Your task to perform on an android device: change your default location settings in chrome Image 0: 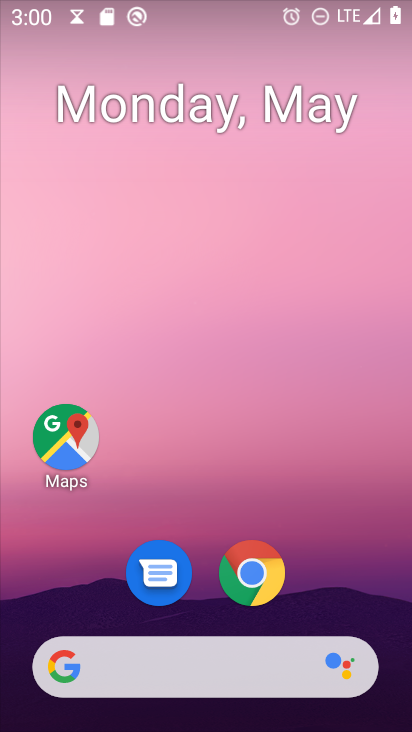
Step 0: drag from (281, 692) to (327, 33)
Your task to perform on an android device: change your default location settings in chrome Image 1: 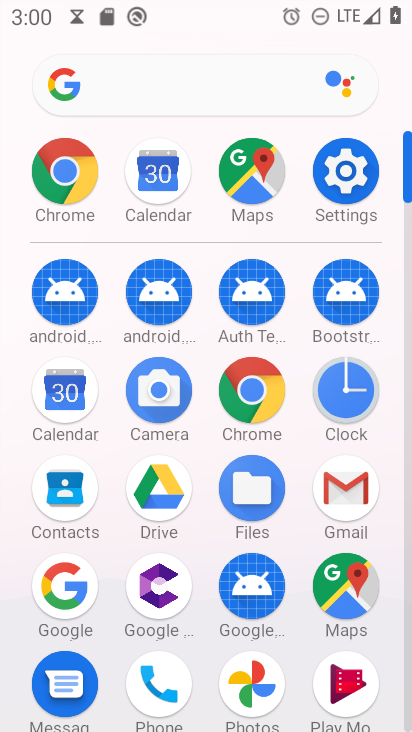
Step 1: click (266, 404)
Your task to perform on an android device: change your default location settings in chrome Image 2: 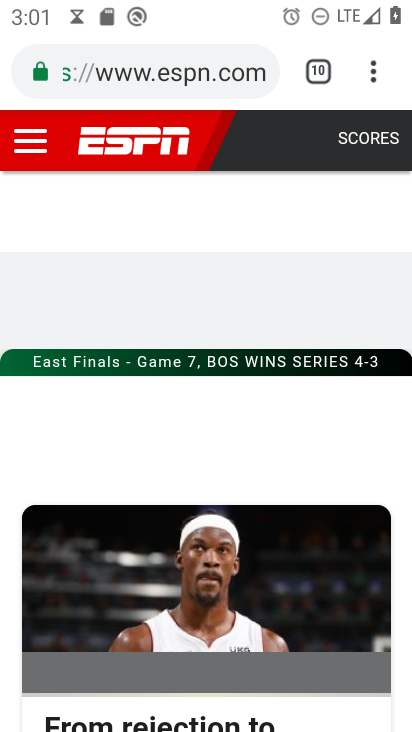
Step 2: drag from (356, 69) to (208, 580)
Your task to perform on an android device: change your default location settings in chrome Image 3: 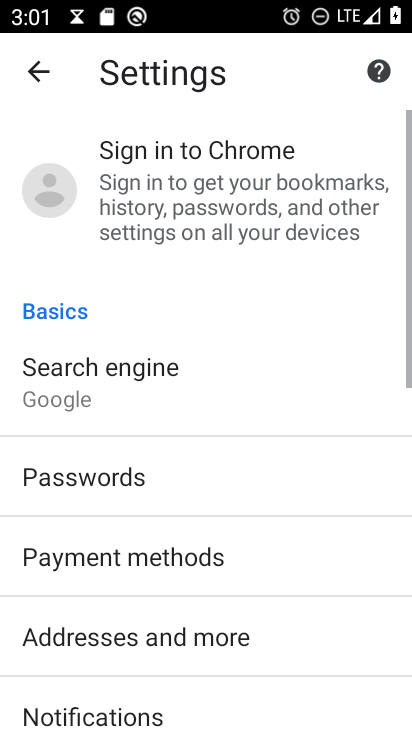
Step 3: drag from (250, 642) to (344, 0)
Your task to perform on an android device: change your default location settings in chrome Image 4: 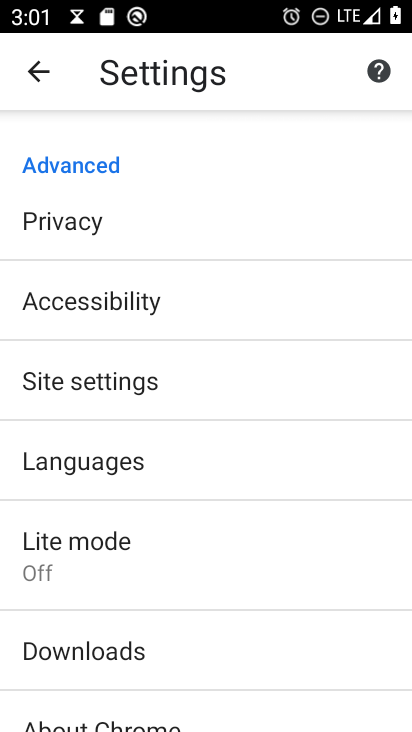
Step 4: drag from (268, 673) to (297, 156)
Your task to perform on an android device: change your default location settings in chrome Image 5: 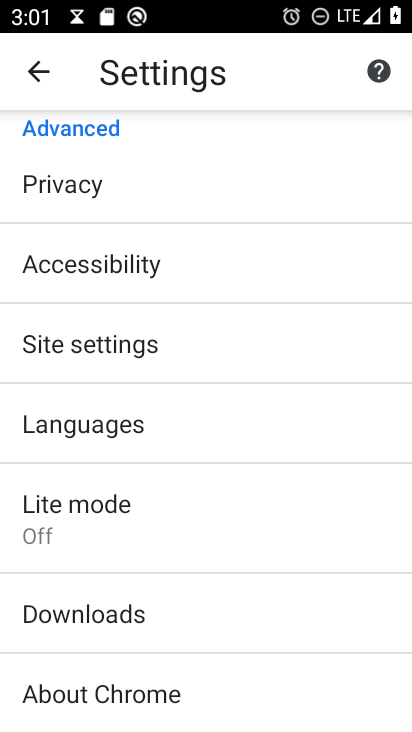
Step 5: drag from (238, 379) to (234, 573)
Your task to perform on an android device: change your default location settings in chrome Image 6: 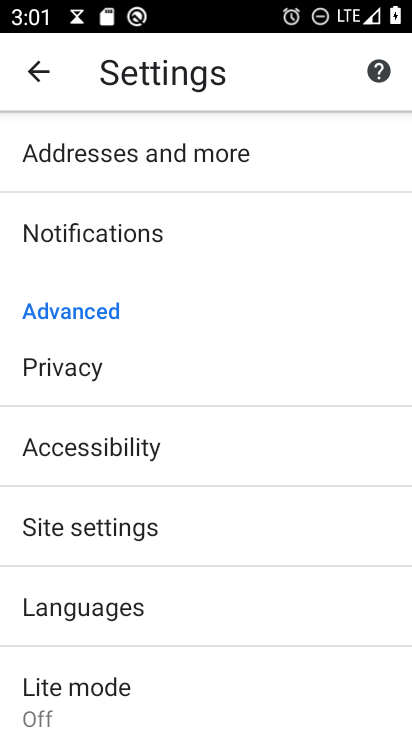
Step 6: click (186, 539)
Your task to perform on an android device: change your default location settings in chrome Image 7: 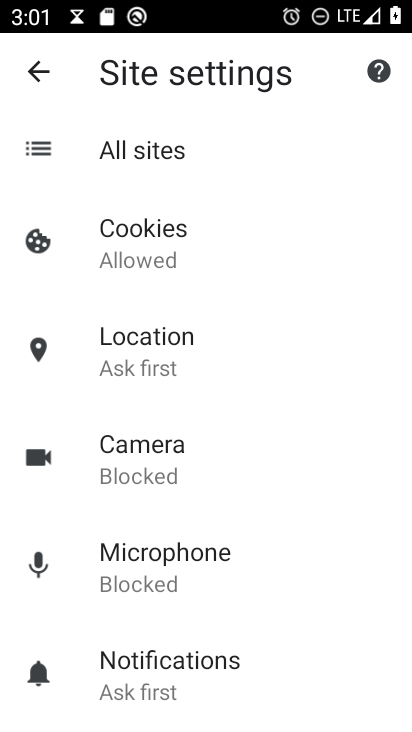
Step 7: click (187, 343)
Your task to perform on an android device: change your default location settings in chrome Image 8: 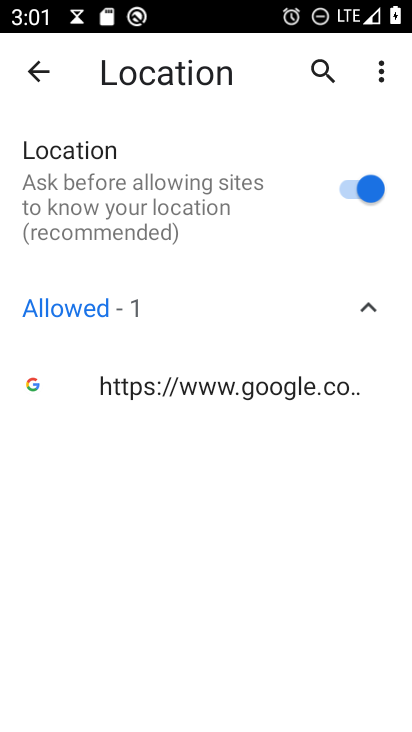
Step 8: task complete